Your task to perform on an android device: change timer sound Image 0: 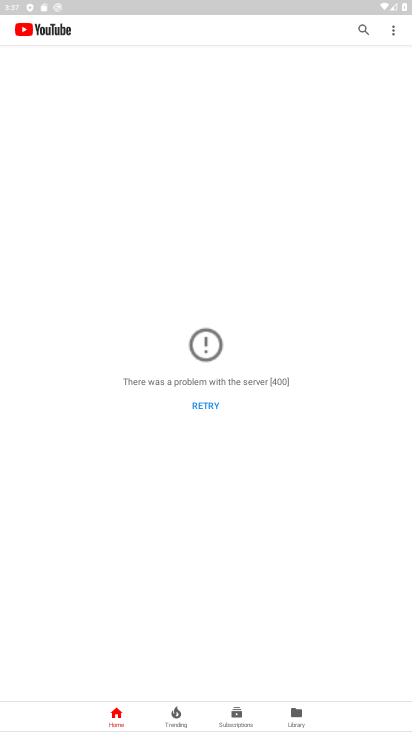
Step 0: press home button
Your task to perform on an android device: change timer sound Image 1: 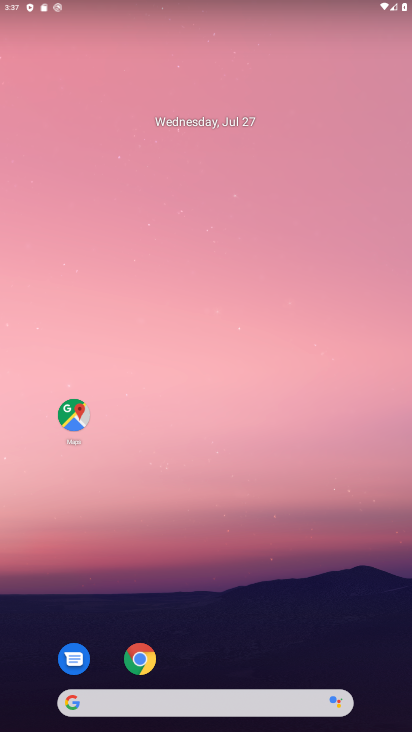
Step 1: drag from (265, 649) to (228, 21)
Your task to perform on an android device: change timer sound Image 2: 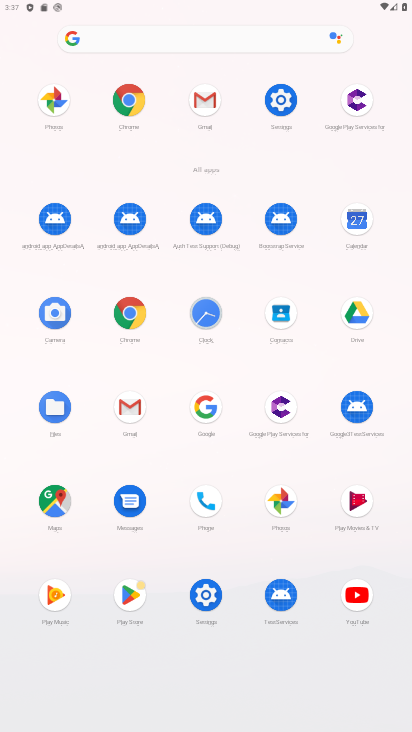
Step 2: click (211, 313)
Your task to perform on an android device: change timer sound Image 3: 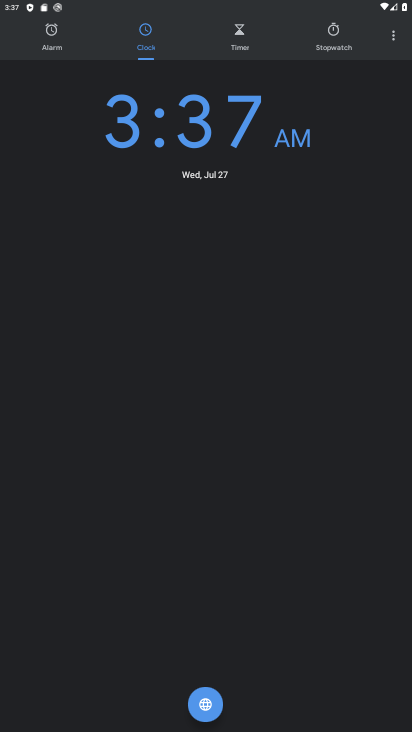
Step 3: click (388, 47)
Your task to perform on an android device: change timer sound Image 4: 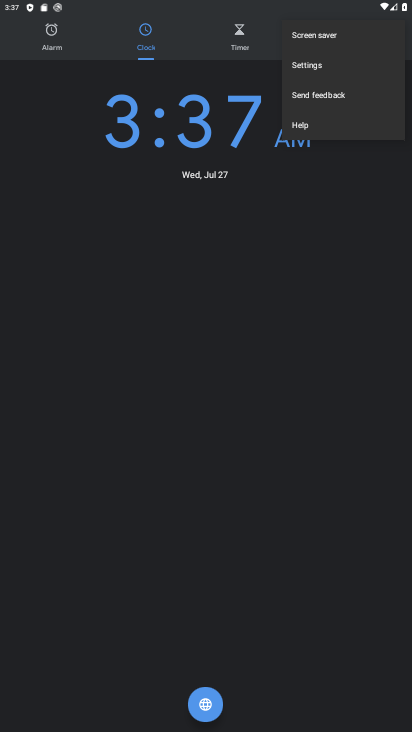
Step 4: click (327, 72)
Your task to perform on an android device: change timer sound Image 5: 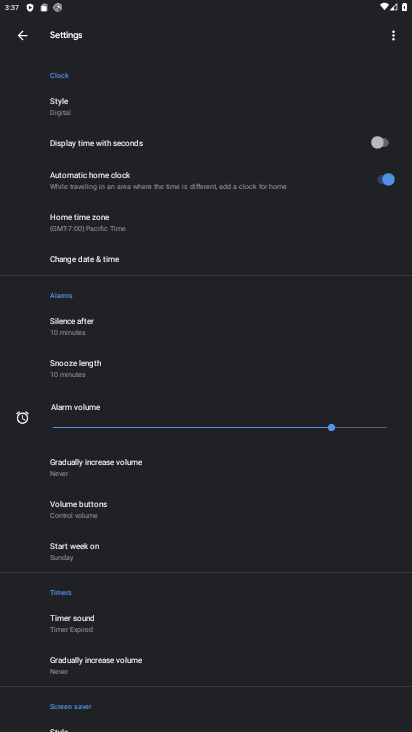
Step 5: click (98, 616)
Your task to perform on an android device: change timer sound Image 6: 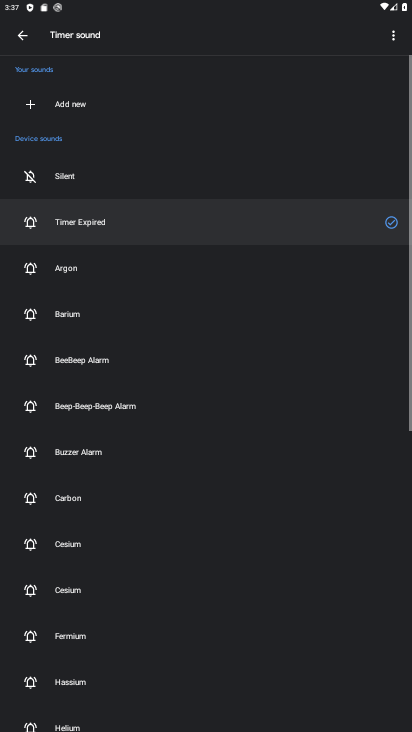
Step 6: click (117, 311)
Your task to perform on an android device: change timer sound Image 7: 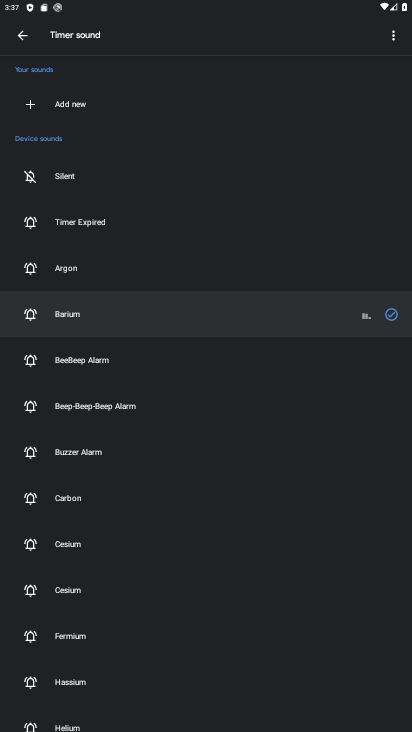
Step 7: task complete